Your task to perform on an android device: check data usage Image 0: 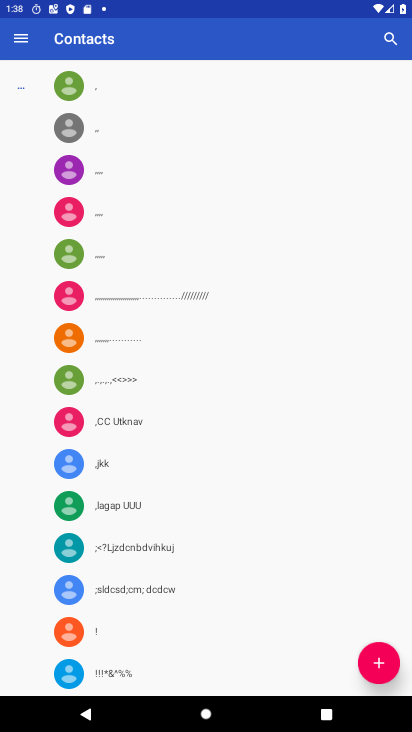
Step 0: press home button
Your task to perform on an android device: check data usage Image 1: 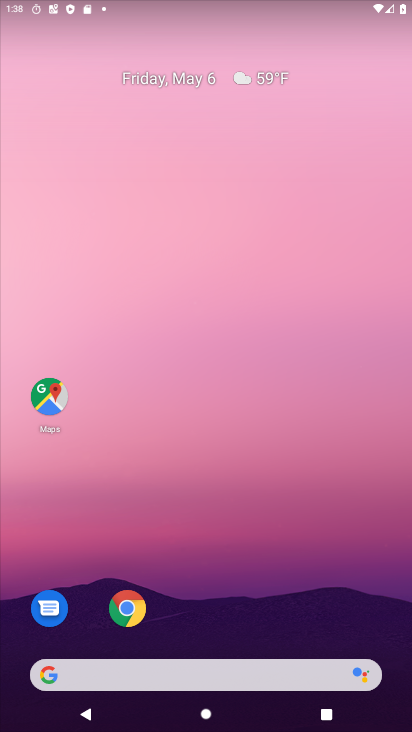
Step 1: drag from (194, 634) to (237, 222)
Your task to perform on an android device: check data usage Image 2: 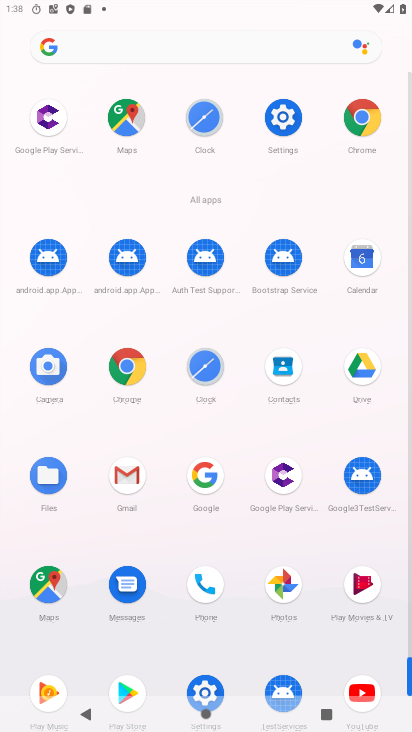
Step 2: click (280, 124)
Your task to perform on an android device: check data usage Image 3: 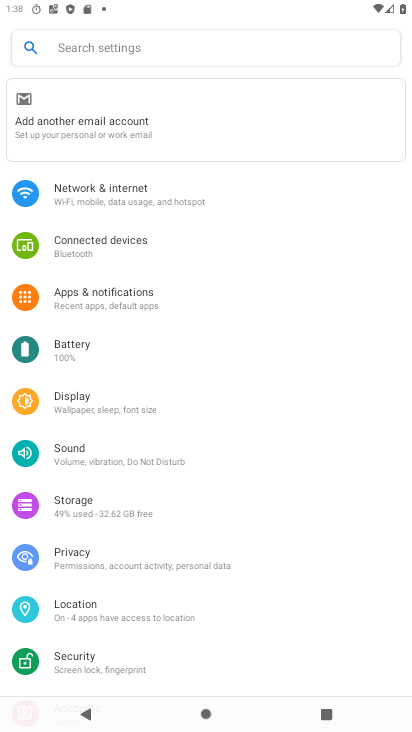
Step 3: drag from (122, 543) to (147, 365)
Your task to perform on an android device: check data usage Image 4: 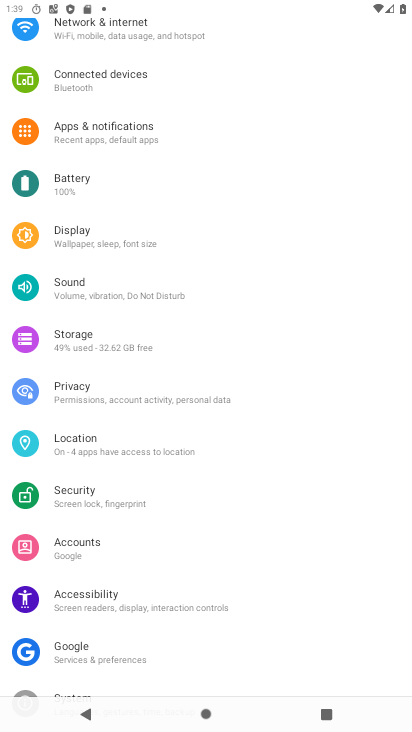
Step 4: drag from (139, 118) to (169, 549)
Your task to perform on an android device: check data usage Image 5: 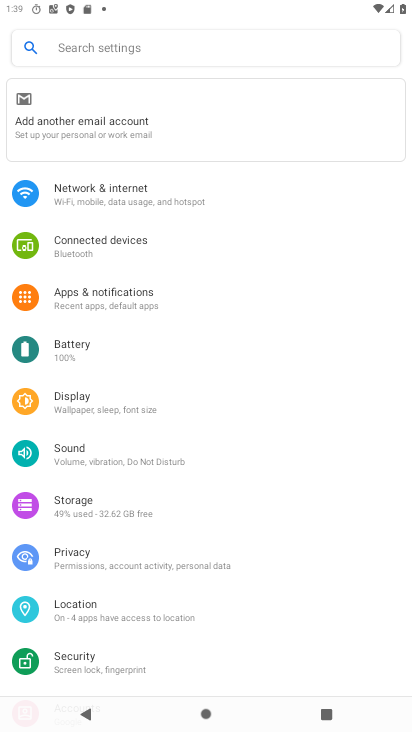
Step 5: click (142, 175)
Your task to perform on an android device: check data usage Image 6: 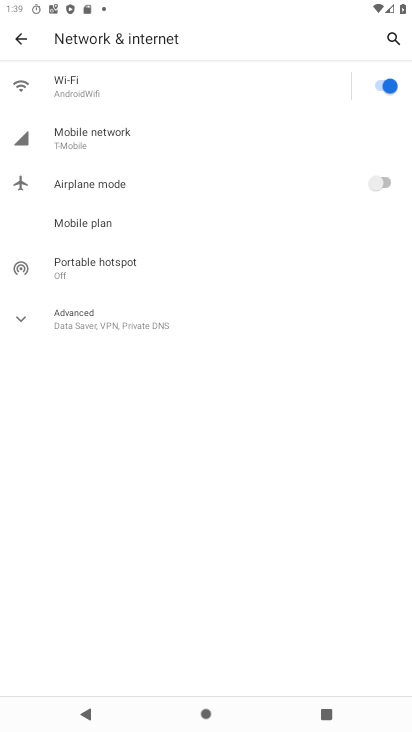
Step 6: click (144, 169)
Your task to perform on an android device: check data usage Image 7: 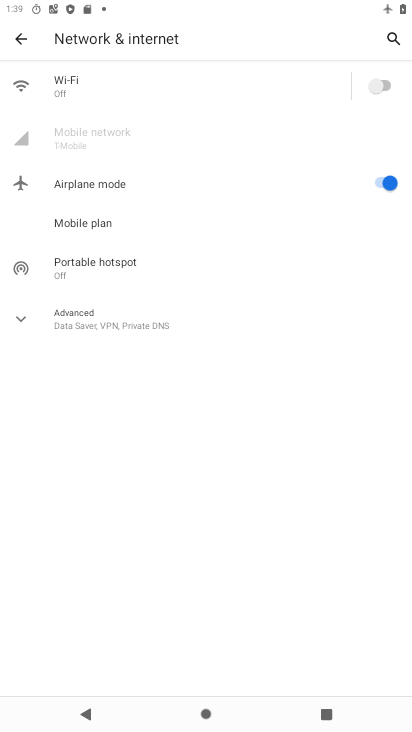
Step 7: click (88, 314)
Your task to perform on an android device: check data usage Image 8: 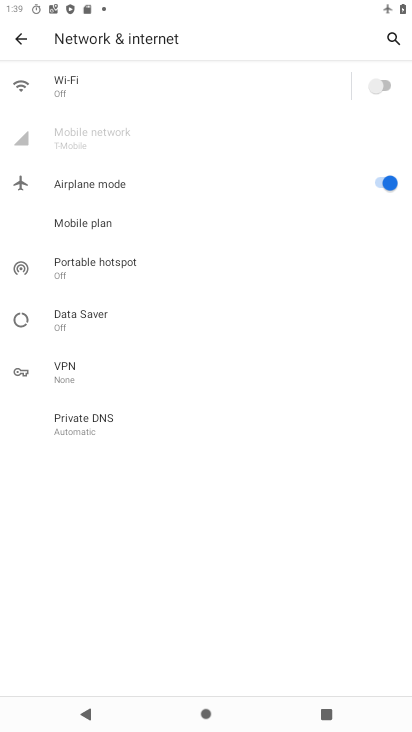
Step 8: click (90, 314)
Your task to perform on an android device: check data usage Image 9: 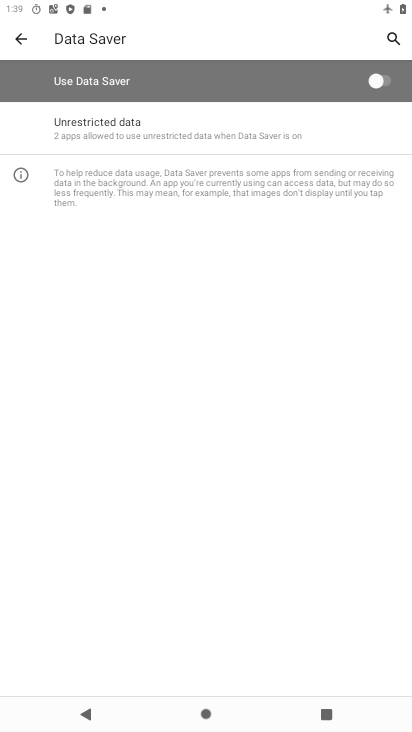
Step 9: task complete